Your task to perform on an android device: remove spam from my inbox in the gmail app Image 0: 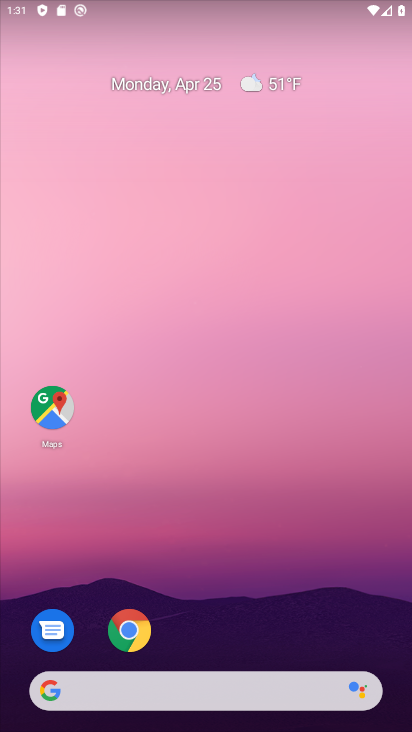
Step 0: drag from (340, 255) to (353, 12)
Your task to perform on an android device: remove spam from my inbox in the gmail app Image 1: 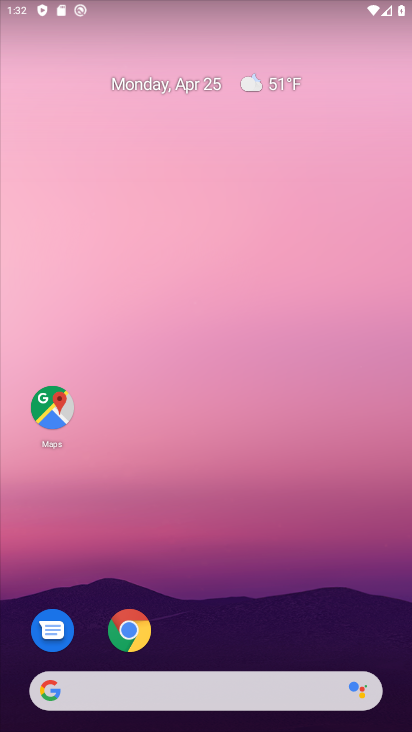
Step 1: drag from (267, 386) to (240, 55)
Your task to perform on an android device: remove spam from my inbox in the gmail app Image 2: 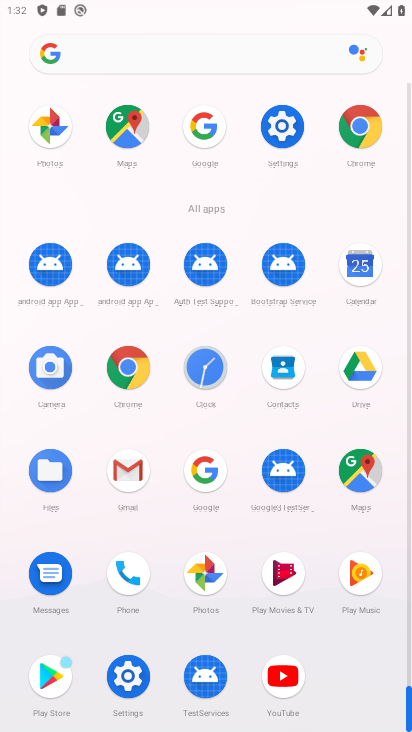
Step 2: click (122, 477)
Your task to perform on an android device: remove spam from my inbox in the gmail app Image 3: 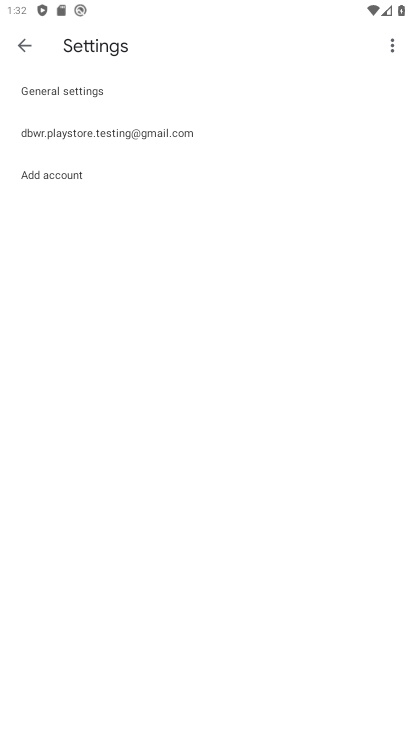
Step 3: click (28, 47)
Your task to perform on an android device: remove spam from my inbox in the gmail app Image 4: 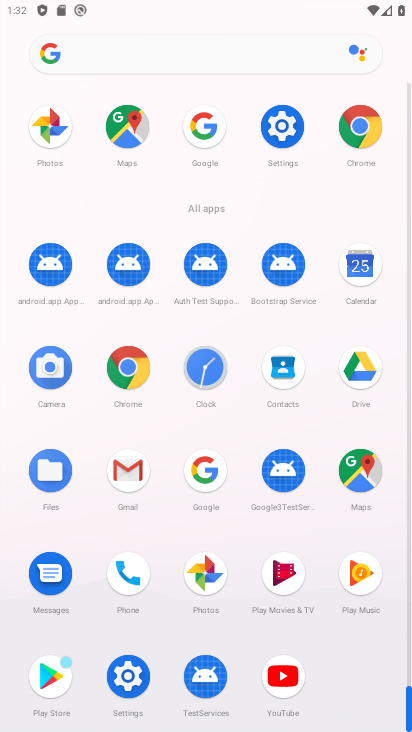
Step 4: click (118, 473)
Your task to perform on an android device: remove spam from my inbox in the gmail app Image 5: 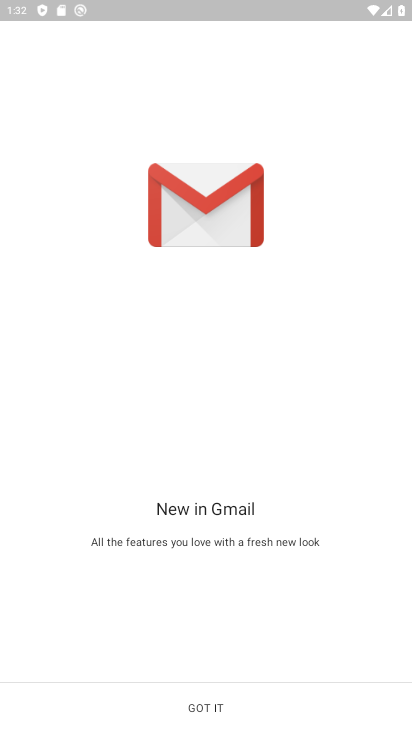
Step 5: click (218, 702)
Your task to perform on an android device: remove spam from my inbox in the gmail app Image 6: 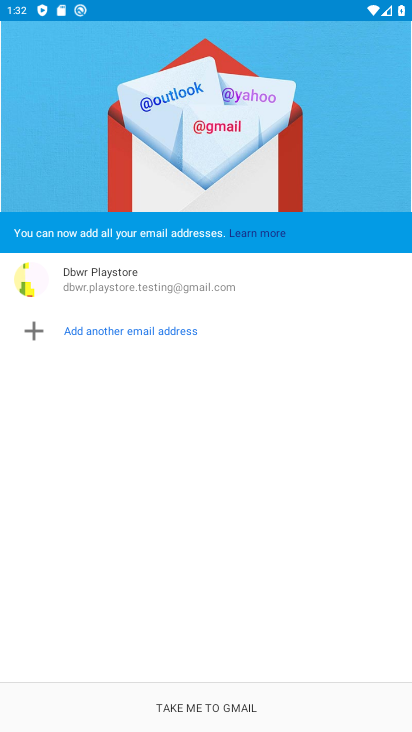
Step 6: click (238, 703)
Your task to perform on an android device: remove spam from my inbox in the gmail app Image 7: 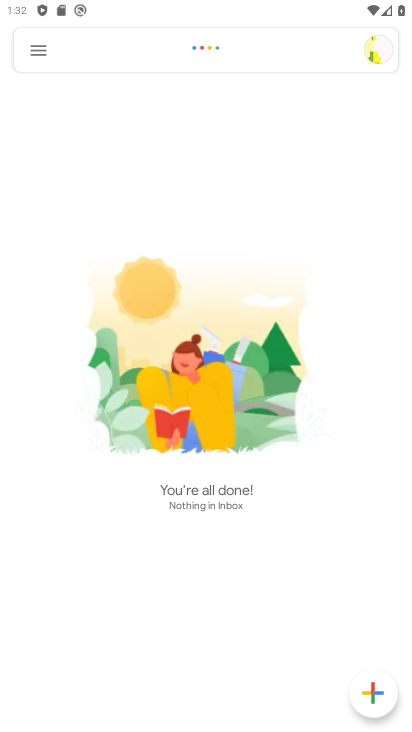
Step 7: click (30, 50)
Your task to perform on an android device: remove spam from my inbox in the gmail app Image 8: 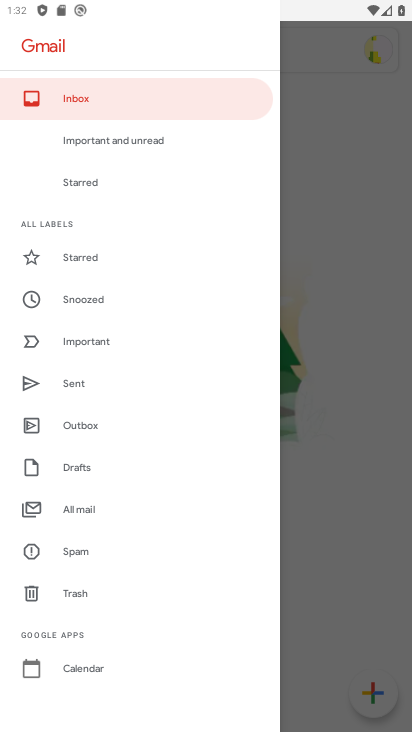
Step 8: click (78, 548)
Your task to perform on an android device: remove spam from my inbox in the gmail app Image 9: 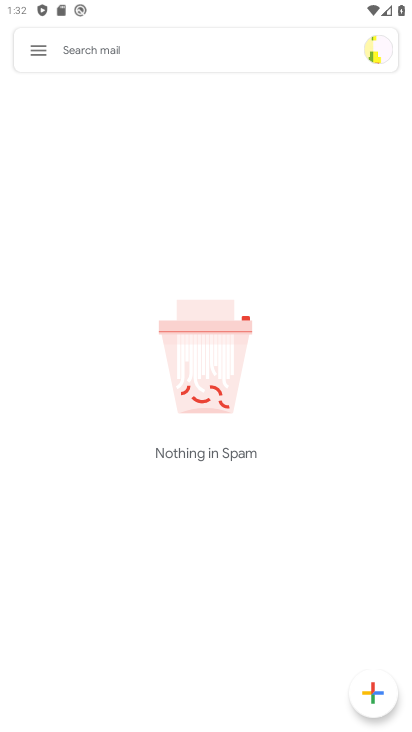
Step 9: task complete